Your task to perform on an android device: show emergency info Image 0: 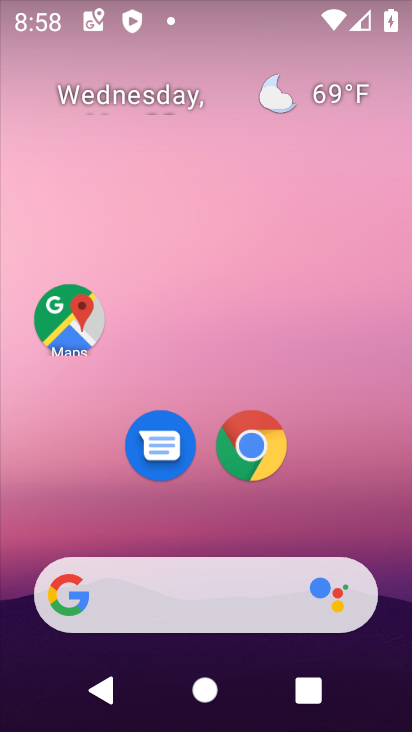
Step 0: drag from (306, 521) to (330, 147)
Your task to perform on an android device: show emergency info Image 1: 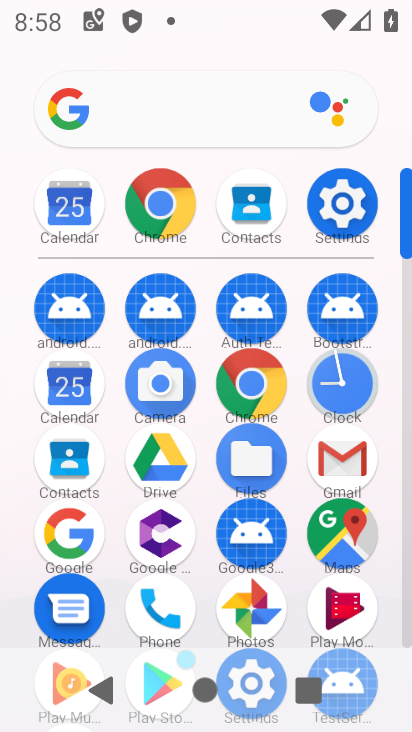
Step 1: click (330, 205)
Your task to perform on an android device: show emergency info Image 2: 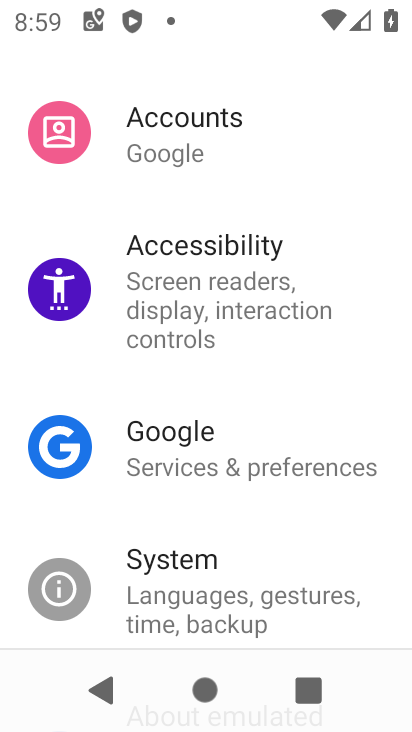
Step 2: drag from (248, 552) to (314, 115)
Your task to perform on an android device: show emergency info Image 3: 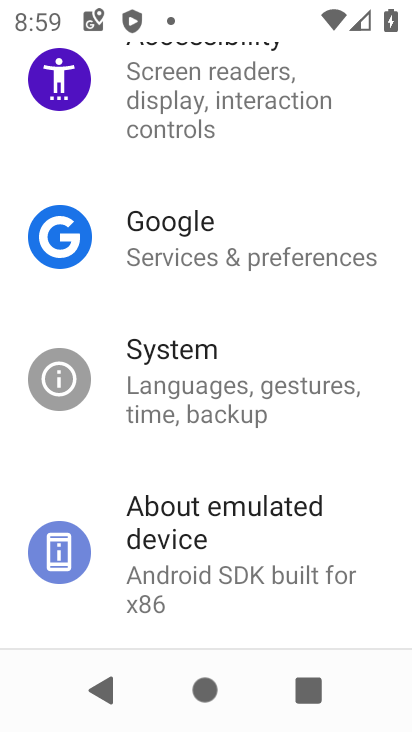
Step 3: click (236, 517)
Your task to perform on an android device: show emergency info Image 4: 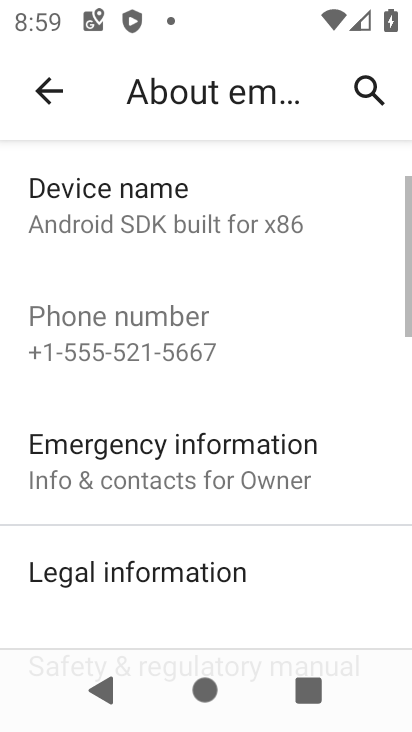
Step 4: click (228, 451)
Your task to perform on an android device: show emergency info Image 5: 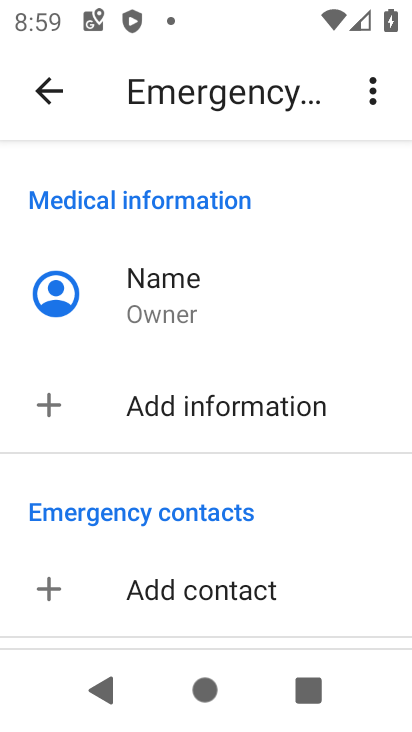
Step 5: task complete